Your task to perform on an android device: turn pop-ups off in chrome Image 0: 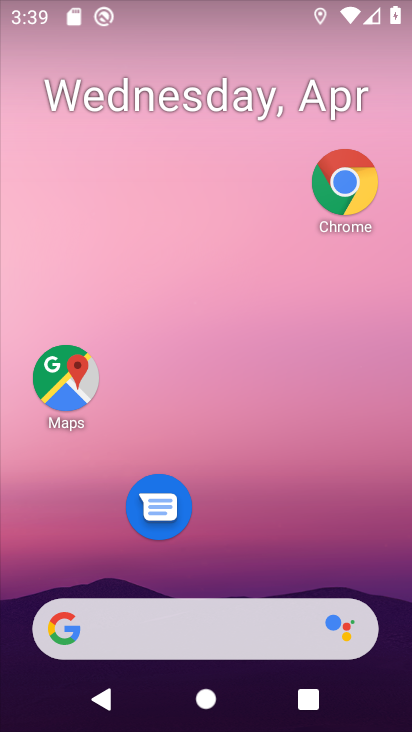
Step 0: click (345, 163)
Your task to perform on an android device: turn pop-ups off in chrome Image 1: 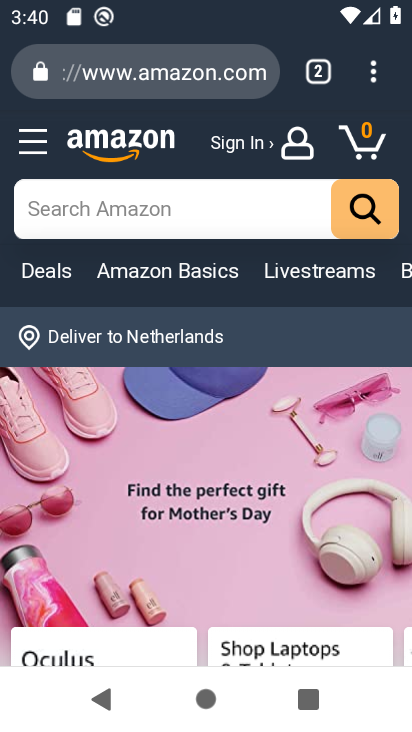
Step 1: click (375, 80)
Your task to perform on an android device: turn pop-ups off in chrome Image 2: 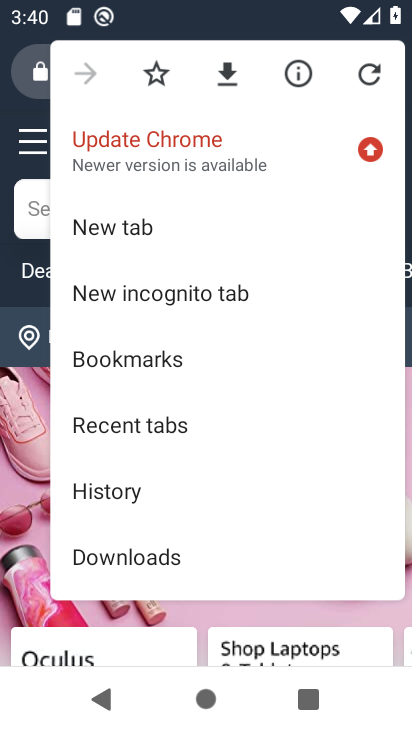
Step 2: drag from (107, 497) to (125, 263)
Your task to perform on an android device: turn pop-ups off in chrome Image 3: 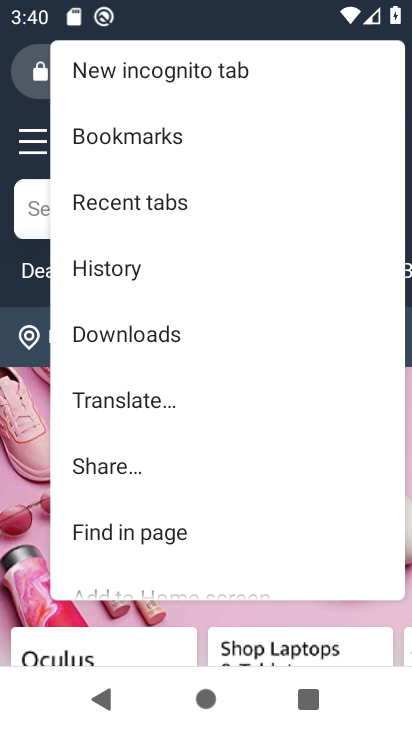
Step 3: drag from (107, 503) to (162, 242)
Your task to perform on an android device: turn pop-ups off in chrome Image 4: 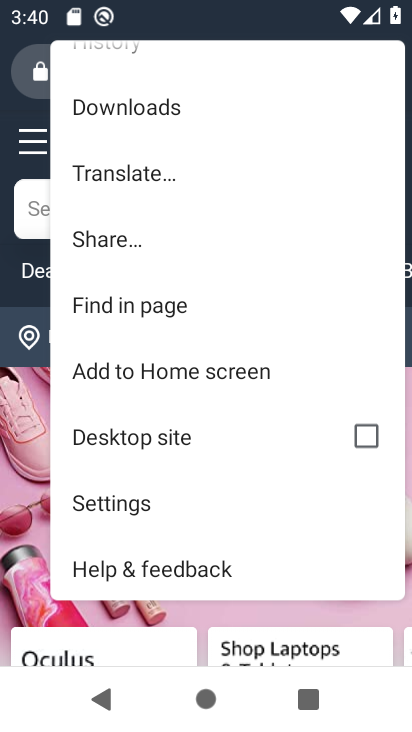
Step 4: click (118, 506)
Your task to perform on an android device: turn pop-ups off in chrome Image 5: 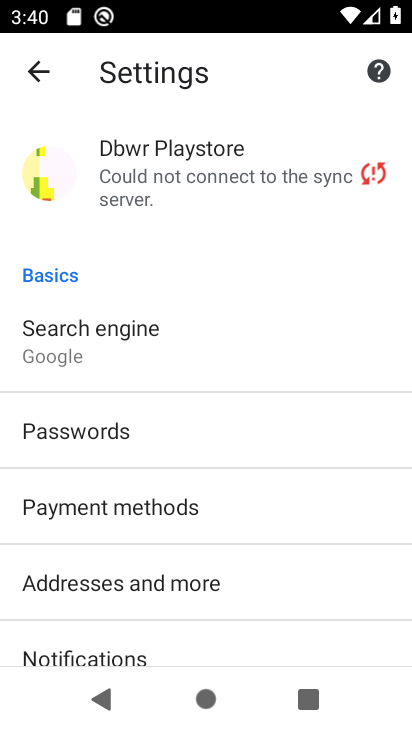
Step 5: drag from (143, 570) to (185, 336)
Your task to perform on an android device: turn pop-ups off in chrome Image 6: 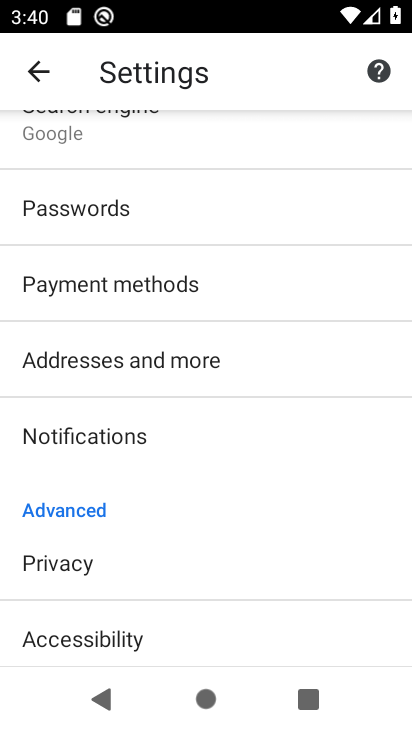
Step 6: drag from (131, 537) to (180, 215)
Your task to perform on an android device: turn pop-ups off in chrome Image 7: 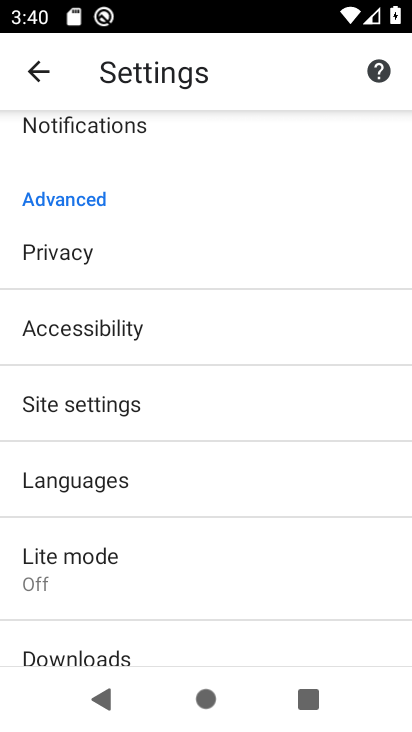
Step 7: click (118, 390)
Your task to perform on an android device: turn pop-ups off in chrome Image 8: 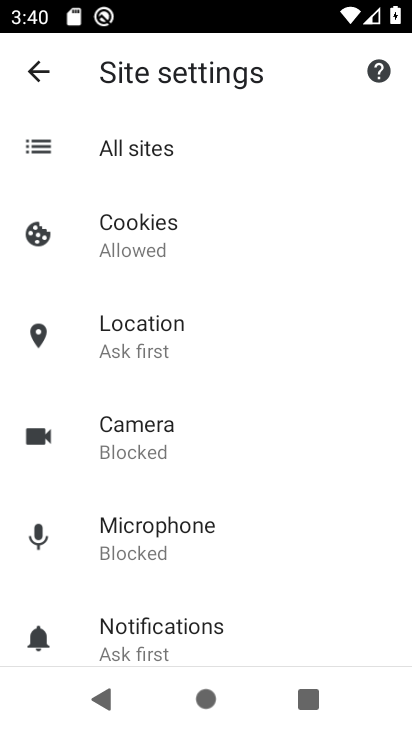
Step 8: drag from (108, 566) to (171, 291)
Your task to perform on an android device: turn pop-ups off in chrome Image 9: 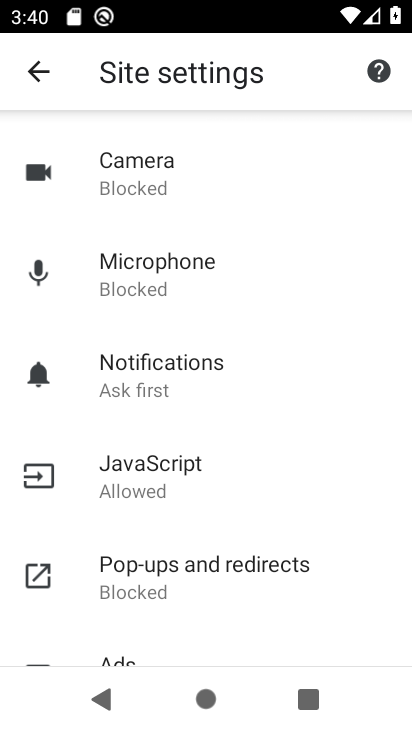
Step 9: click (158, 576)
Your task to perform on an android device: turn pop-ups off in chrome Image 10: 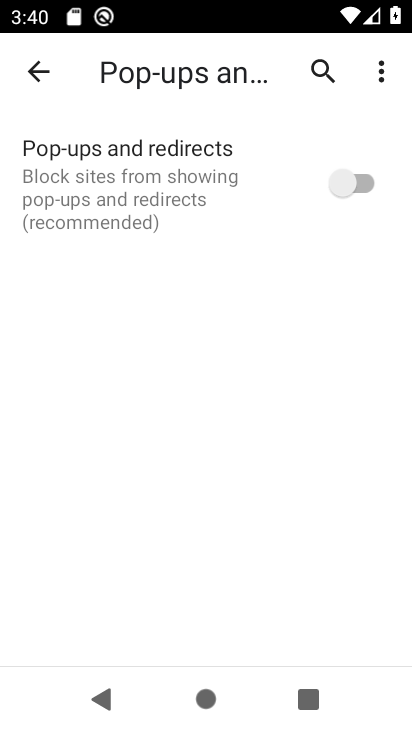
Step 10: task complete